Your task to perform on an android device: Set the phone to "Do not disturb". Image 0: 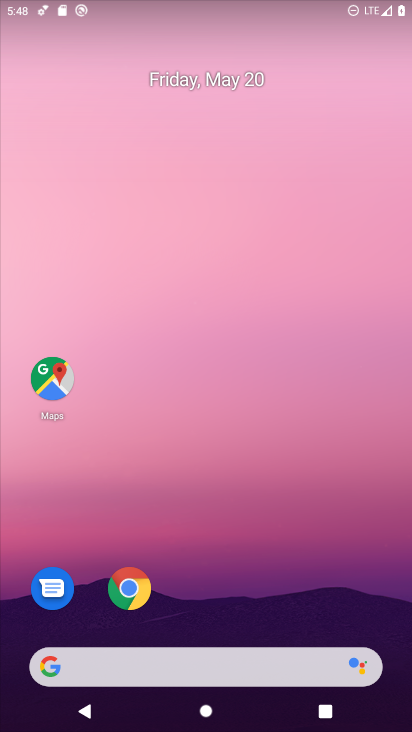
Step 0: drag from (215, 615) to (223, 169)
Your task to perform on an android device: Set the phone to "Do not disturb". Image 1: 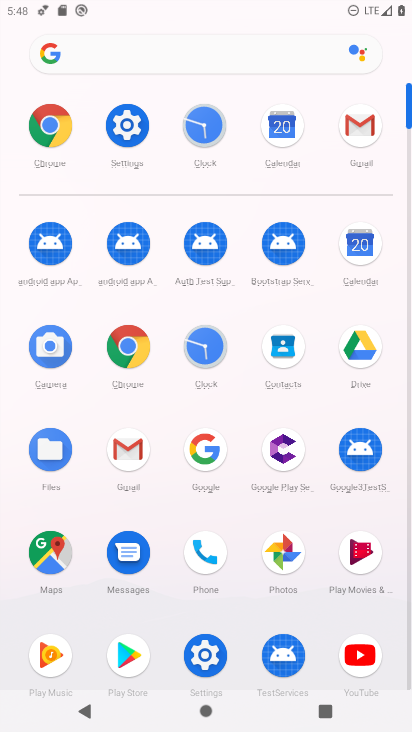
Step 1: click (206, 661)
Your task to perform on an android device: Set the phone to "Do not disturb". Image 2: 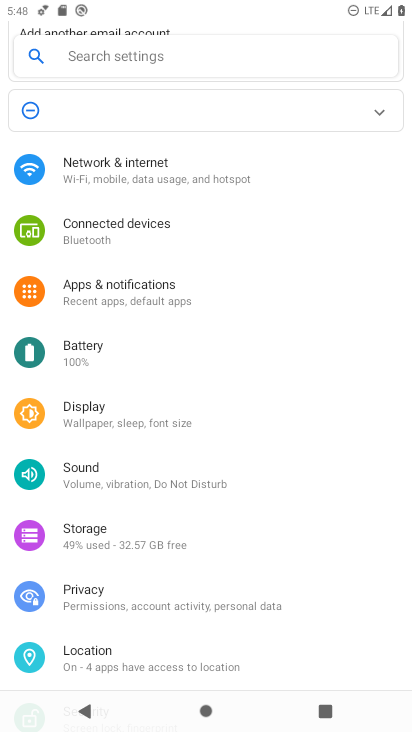
Step 2: click (88, 484)
Your task to perform on an android device: Set the phone to "Do not disturb". Image 3: 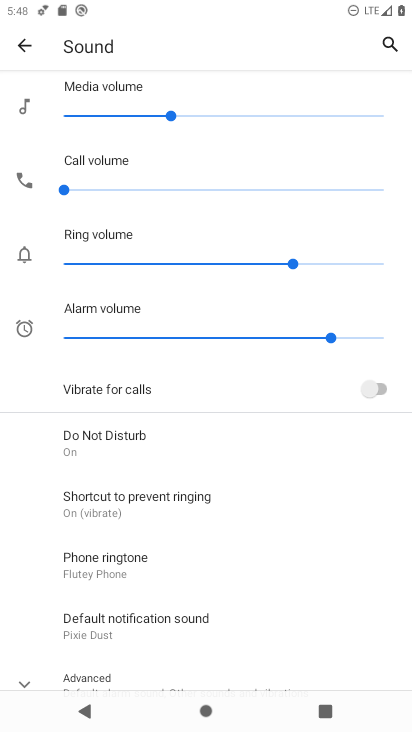
Step 3: click (105, 447)
Your task to perform on an android device: Set the phone to "Do not disturb". Image 4: 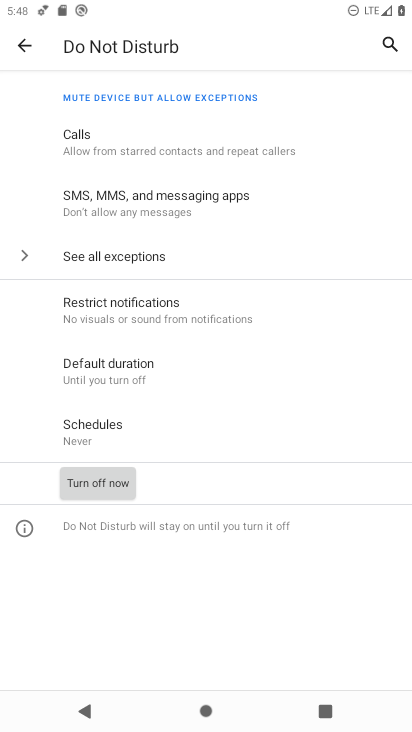
Step 4: task complete